Your task to perform on an android device: Go to accessibility settings Image 0: 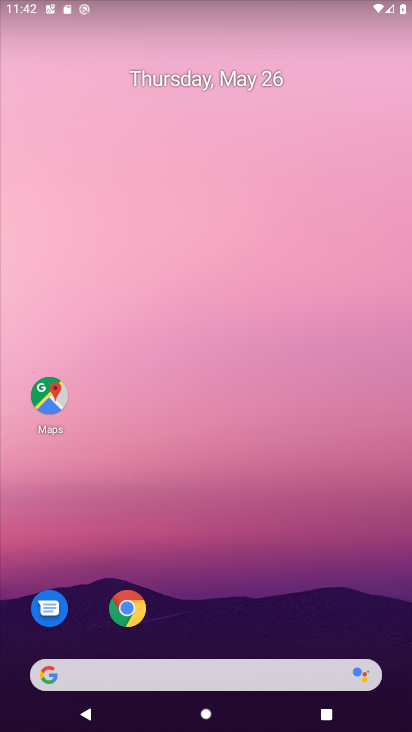
Step 0: drag from (400, 672) to (368, 284)
Your task to perform on an android device: Go to accessibility settings Image 1: 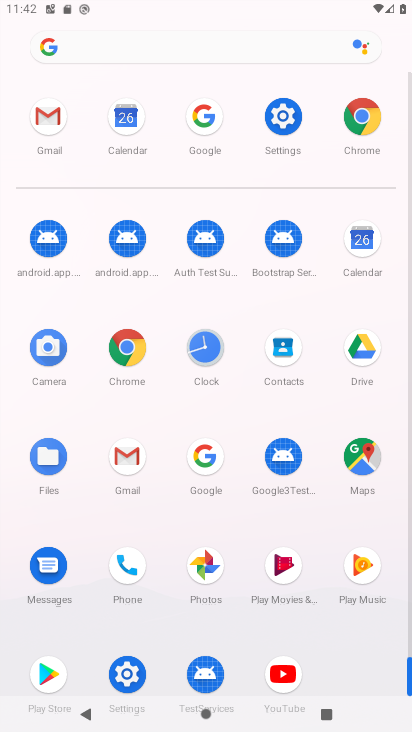
Step 1: click (125, 672)
Your task to perform on an android device: Go to accessibility settings Image 2: 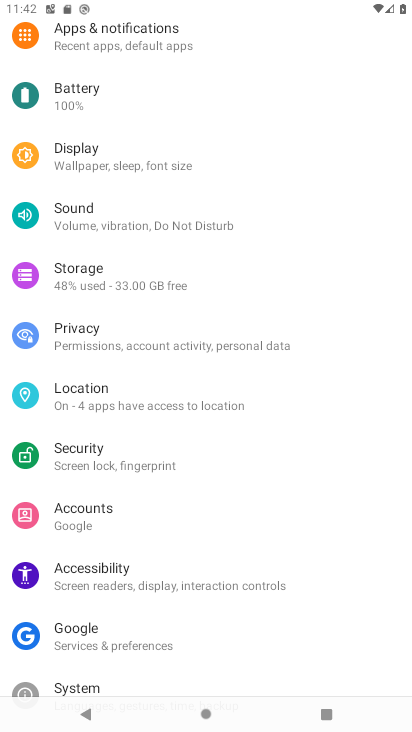
Step 2: click (87, 572)
Your task to perform on an android device: Go to accessibility settings Image 3: 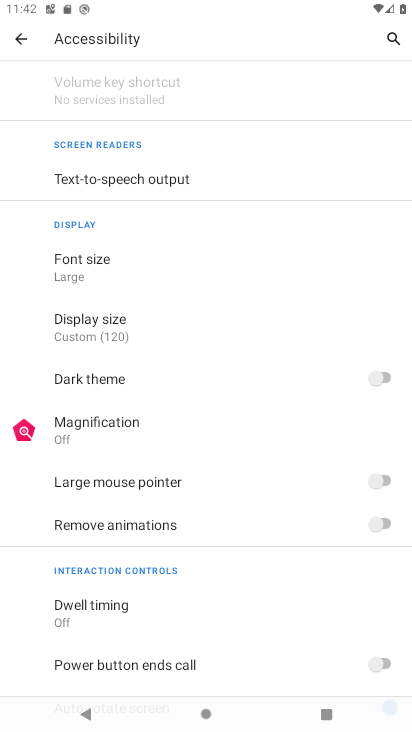
Step 3: task complete